Your task to perform on an android device: visit the assistant section in the google photos Image 0: 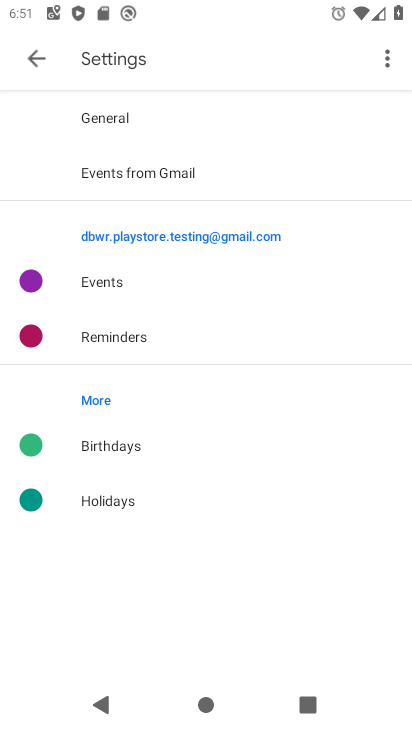
Step 0: press home button
Your task to perform on an android device: visit the assistant section in the google photos Image 1: 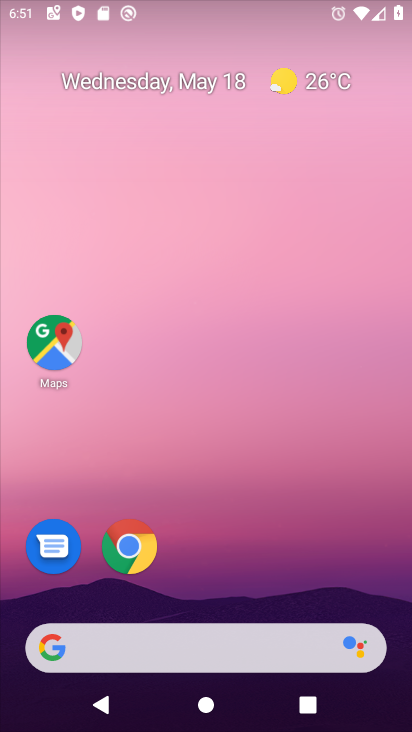
Step 1: drag from (380, 532) to (346, 86)
Your task to perform on an android device: visit the assistant section in the google photos Image 2: 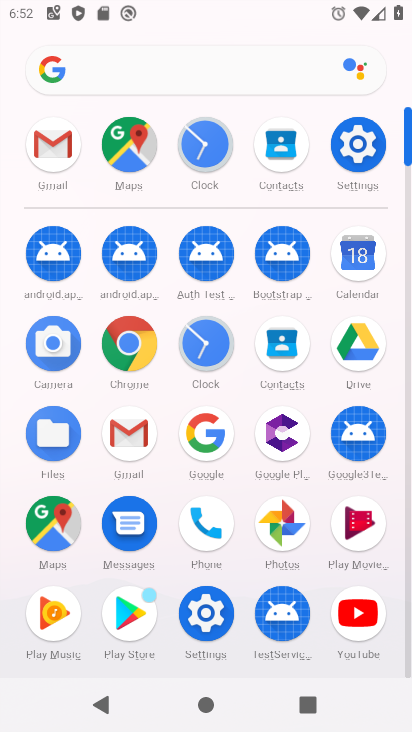
Step 2: click (301, 530)
Your task to perform on an android device: visit the assistant section in the google photos Image 3: 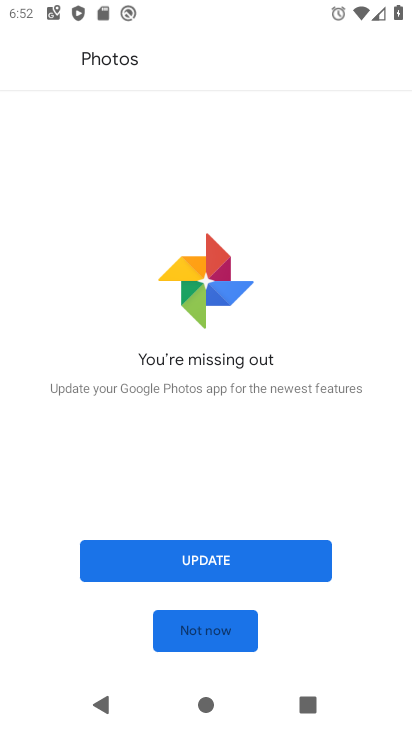
Step 3: click (180, 566)
Your task to perform on an android device: visit the assistant section in the google photos Image 4: 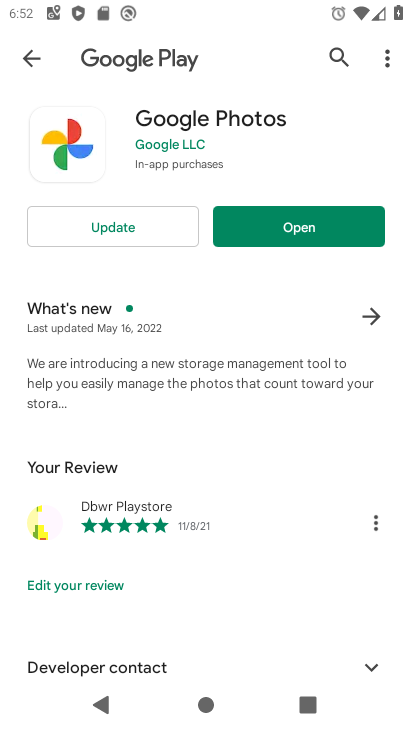
Step 4: click (136, 215)
Your task to perform on an android device: visit the assistant section in the google photos Image 5: 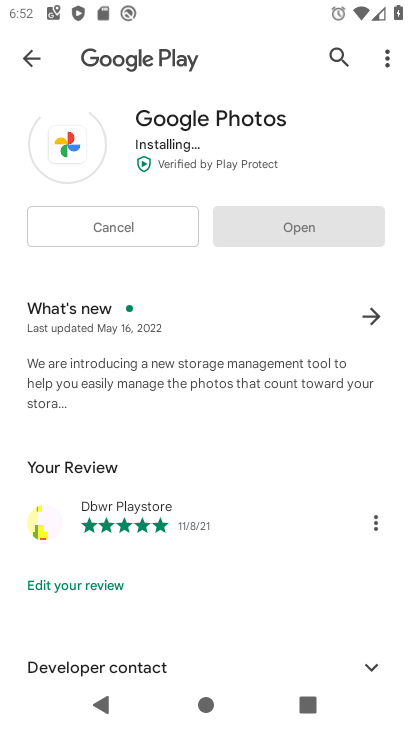
Step 5: drag from (149, 359) to (266, 341)
Your task to perform on an android device: visit the assistant section in the google photos Image 6: 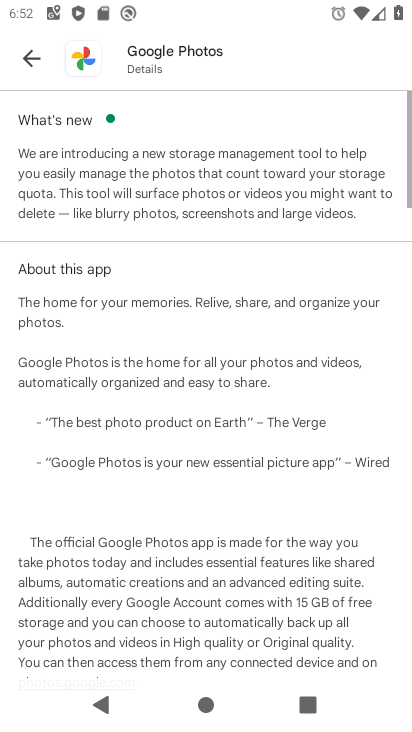
Step 6: click (316, 214)
Your task to perform on an android device: visit the assistant section in the google photos Image 7: 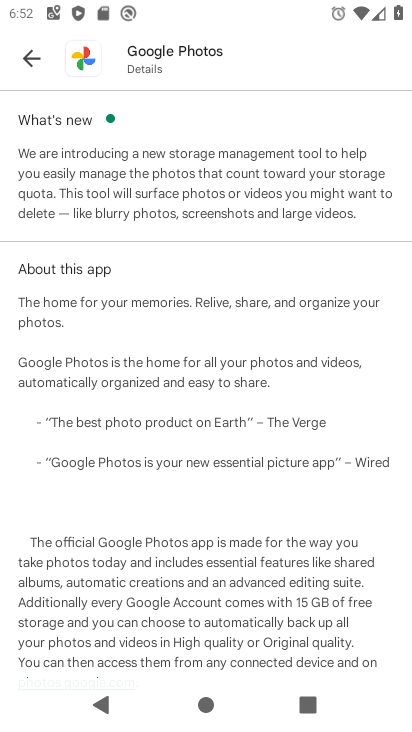
Step 7: drag from (206, 559) to (220, 112)
Your task to perform on an android device: visit the assistant section in the google photos Image 8: 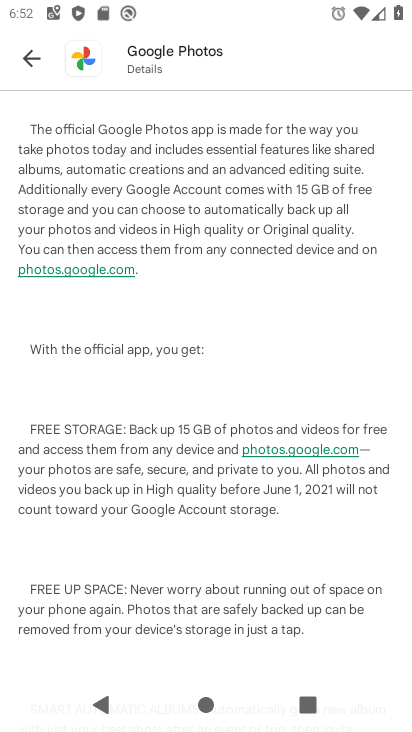
Step 8: click (23, 54)
Your task to perform on an android device: visit the assistant section in the google photos Image 9: 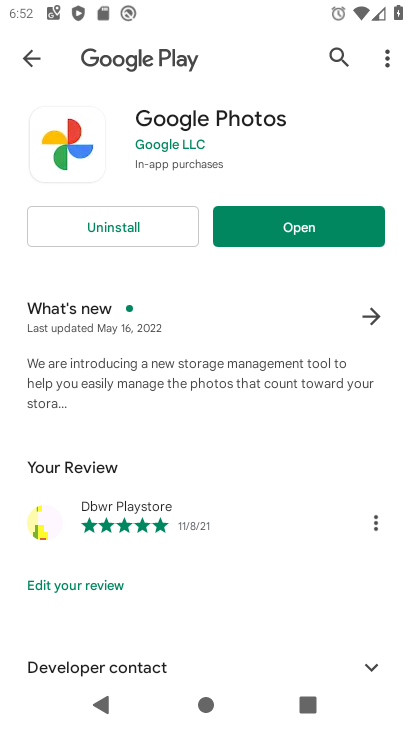
Step 9: click (325, 239)
Your task to perform on an android device: visit the assistant section in the google photos Image 10: 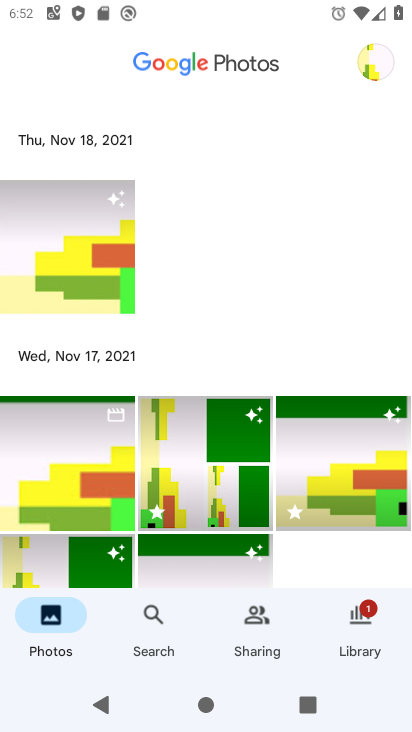
Step 10: task complete